Your task to perform on an android device: Open sound settings Image 0: 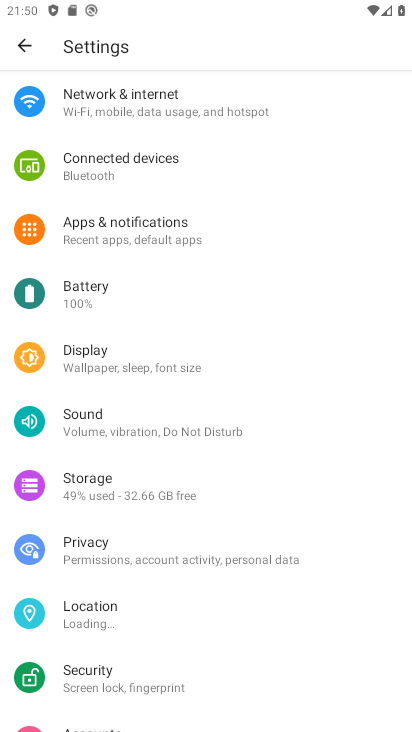
Step 0: click (100, 425)
Your task to perform on an android device: Open sound settings Image 1: 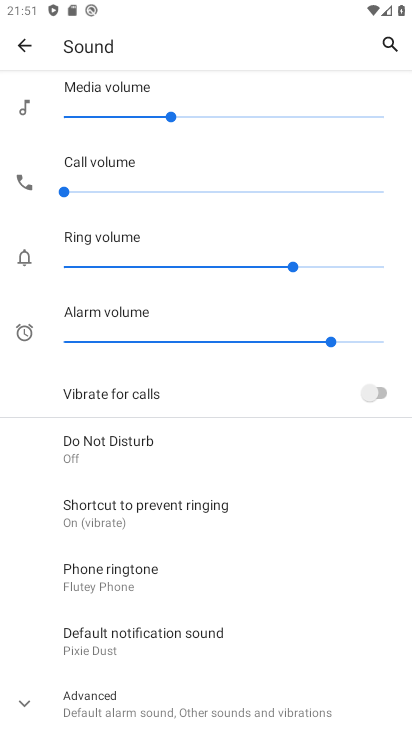
Step 1: task complete